Your task to perform on an android device: Open the stopwatch Image 0: 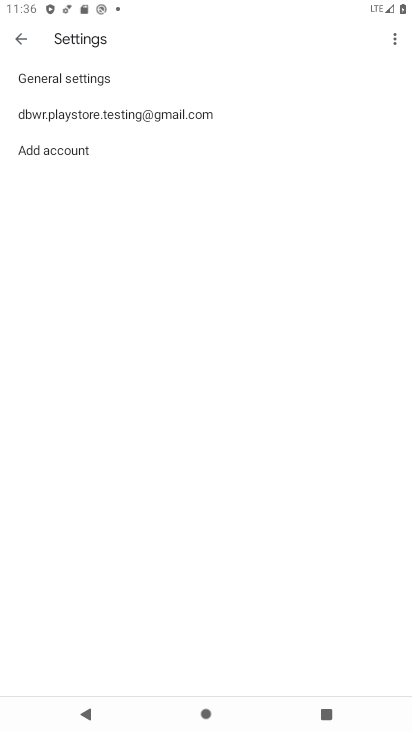
Step 0: press home button
Your task to perform on an android device: Open the stopwatch Image 1: 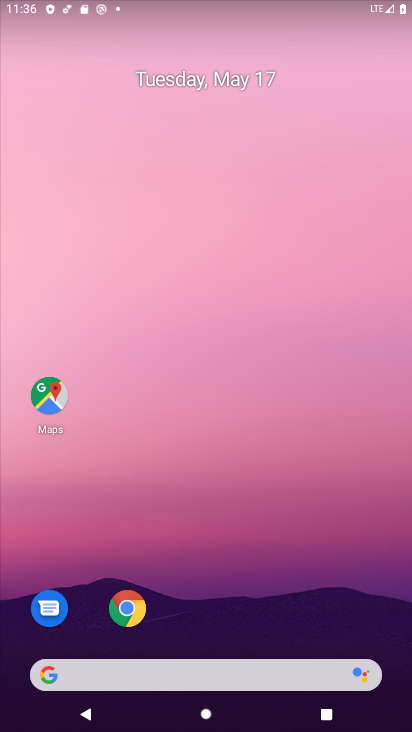
Step 1: drag from (314, 463) to (194, 26)
Your task to perform on an android device: Open the stopwatch Image 2: 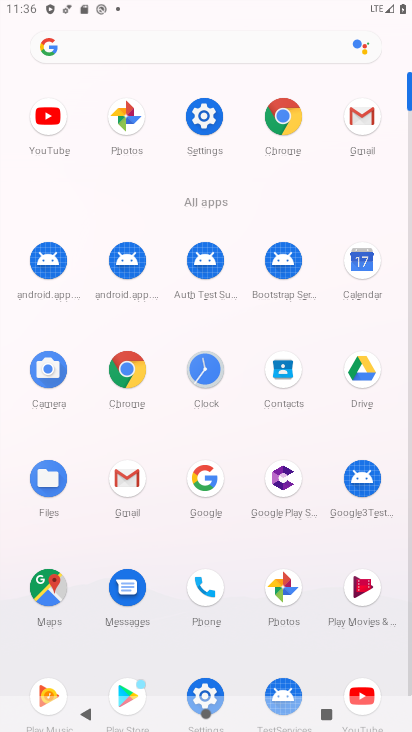
Step 2: click (211, 382)
Your task to perform on an android device: Open the stopwatch Image 3: 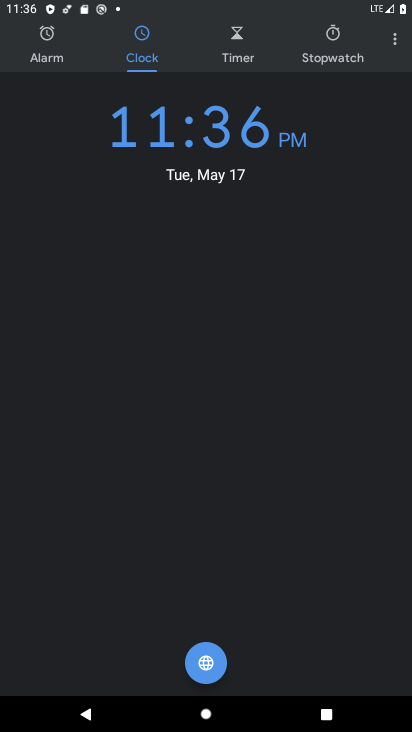
Step 3: click (333, 33)
Your task to perform on an android device: Open the stopwatch Image 4: 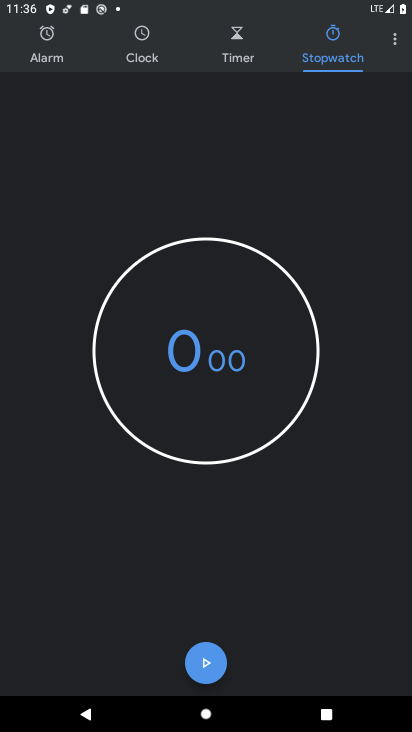
Step 4: task complete